Your task to perform on an android device: Open the web browser Image 0: 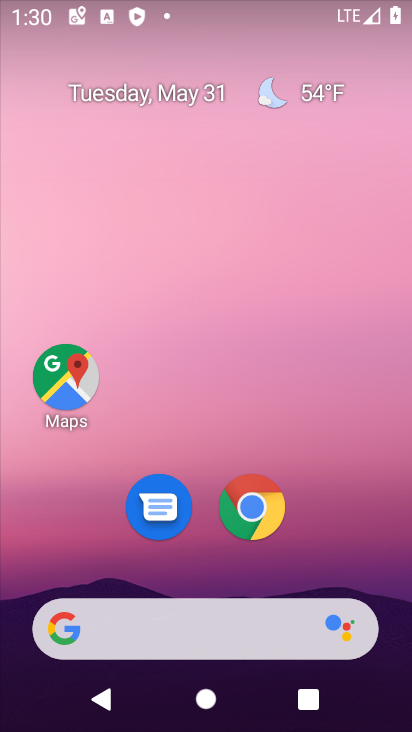
Step 0: drag from (393, 628) to (288, 71)
Your task to perform on an android device: Open the web browser Image 1: 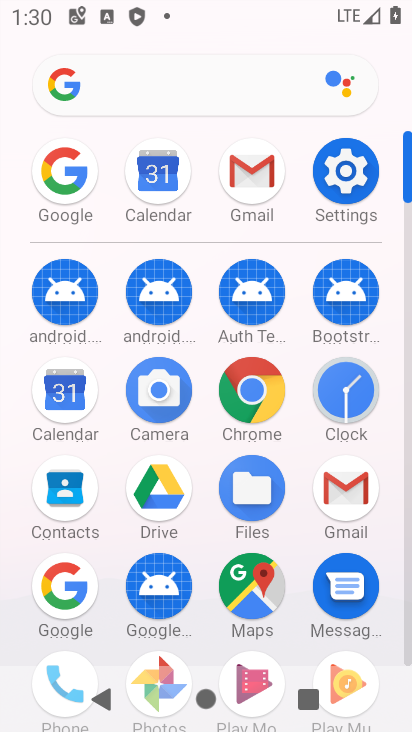
Step 1: click (69, 152)
Your task to perform on an android device: Open the web browser Image 2: 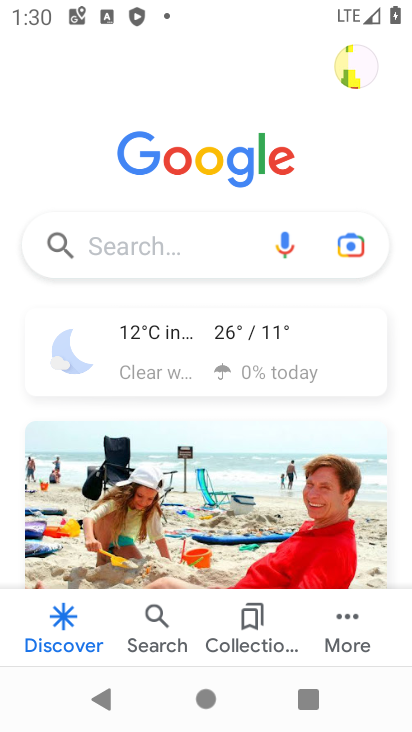
Step 2: click (146, 238)
Your task to perform on an android device: Open the web browser Image 3: 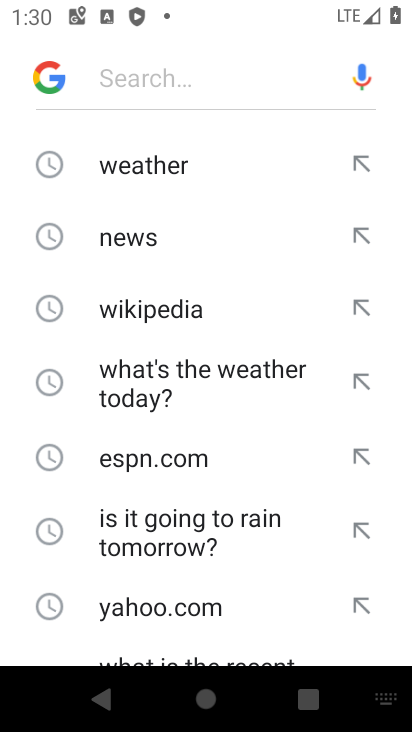
Step 3: drag from (160, 559) to (174, 135)
Your task to perform on an android device: Open the web browser Image 4: 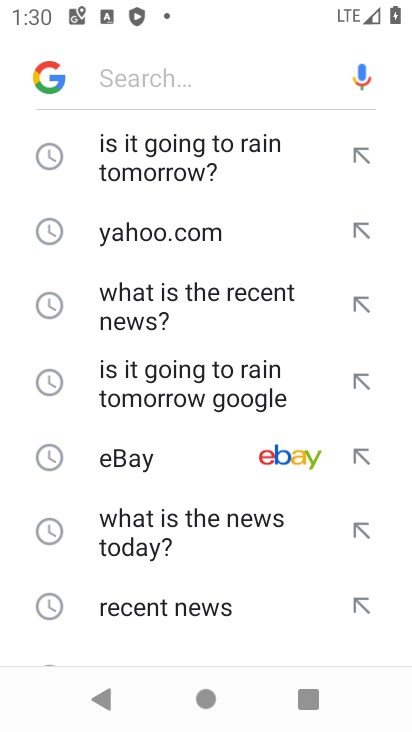
Step 4: drag from (162, 581) to (126, 91)
Your task to perform on an android device: Open the web browser Image 5: 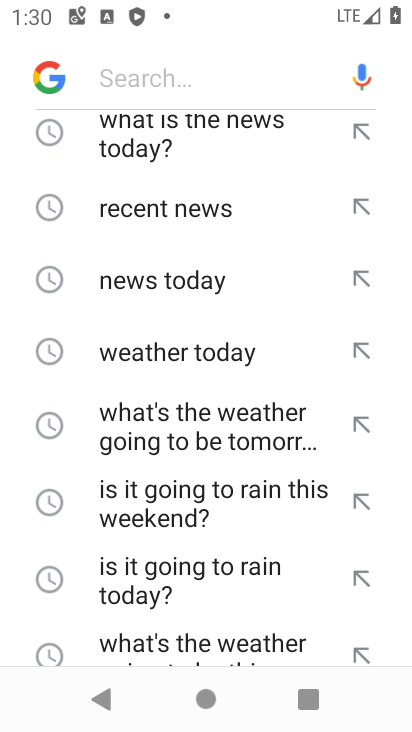
Step 5: drag from (170, 559) to (220, 103)
Your task to perform on an android device: Open the web browser Image 6: 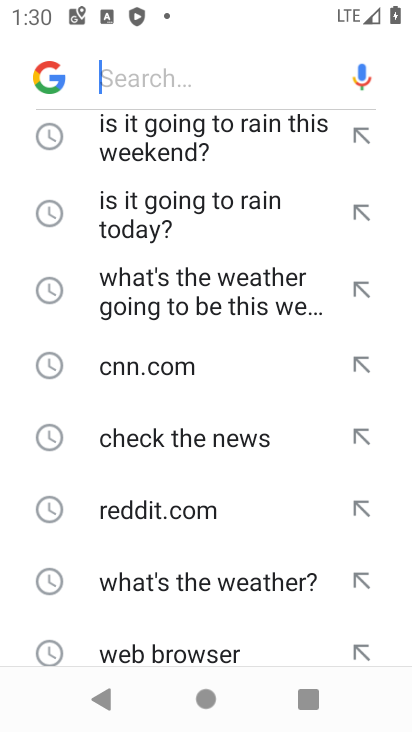
Step 6: drag from (185, 554) to (214, 264)
Your task to perform on an android device: Open the web browser Image 7: 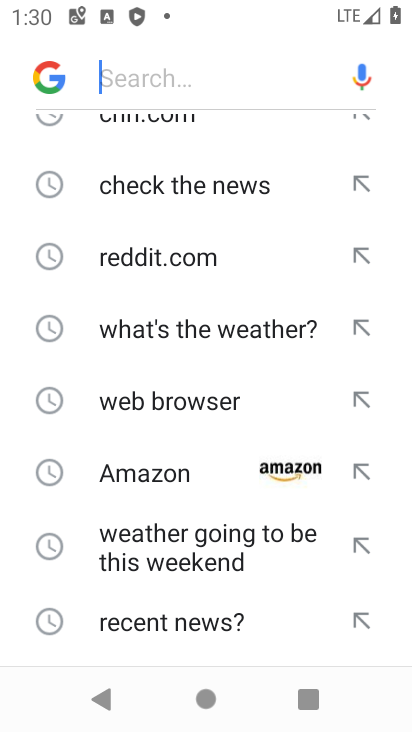
Step 7: click (181, 400)
Your task to perform on an android device: Open the web browser Image 8: 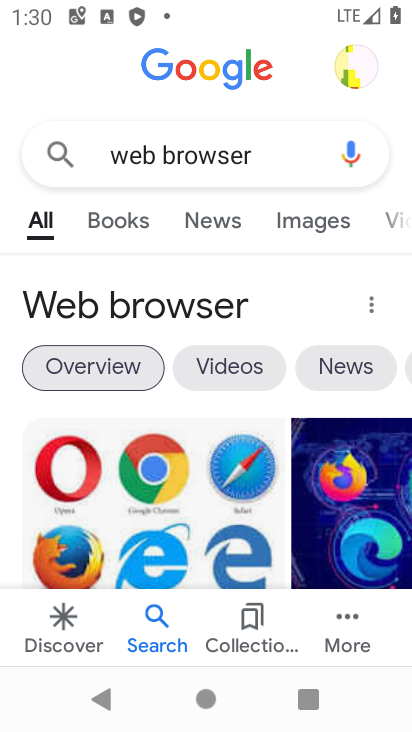
Step 8: task complete